Your task to perform on an android device: Go to wifi settings Image 0: 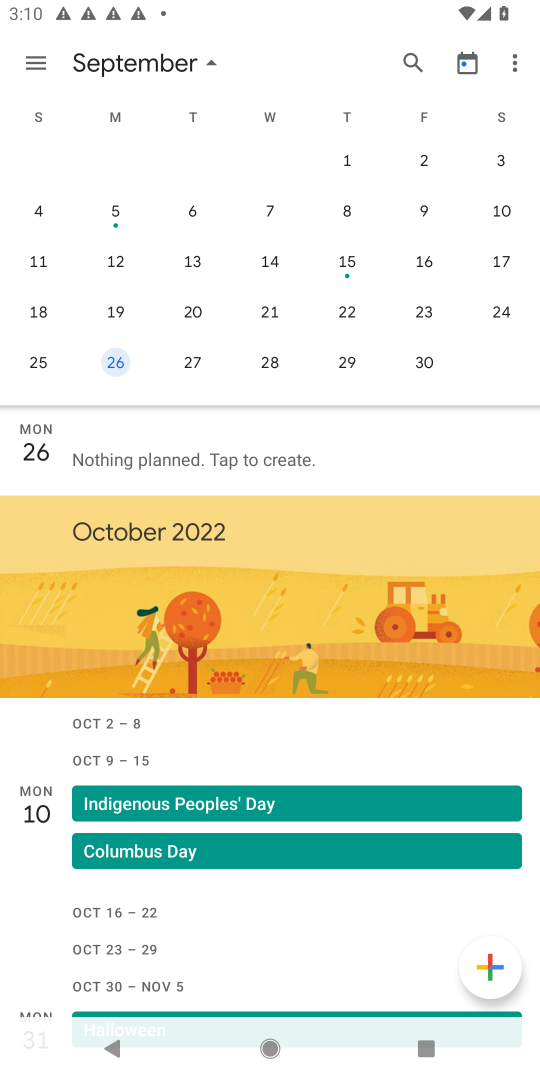
Step 0: press home button
Your task to perform on an android device: Go to wifi settings Image 1: 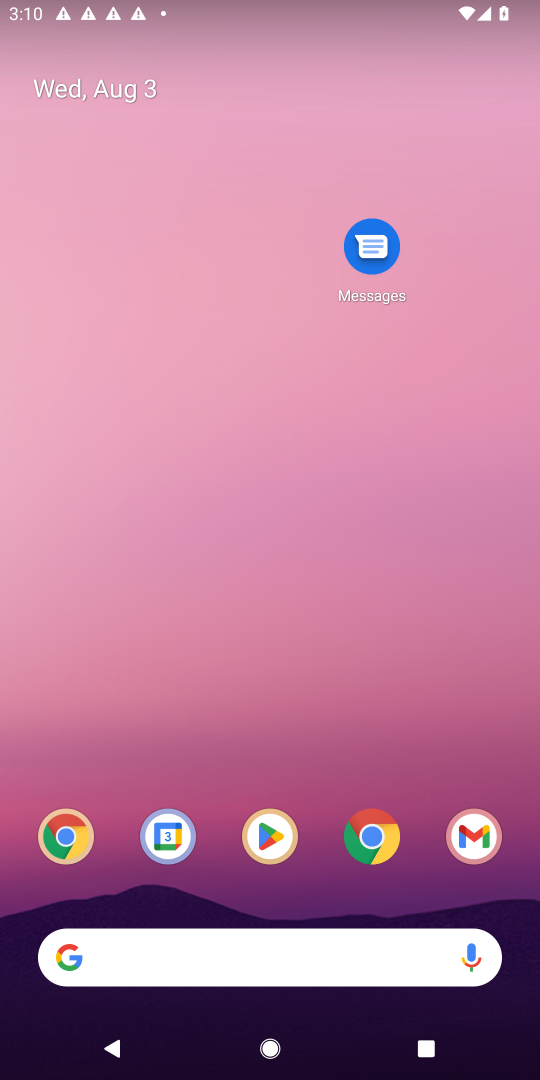
Step 1: drag from (70, 1002) to (289, 310)
Your task to perform on an android device: Go to wifi settings Image 2: 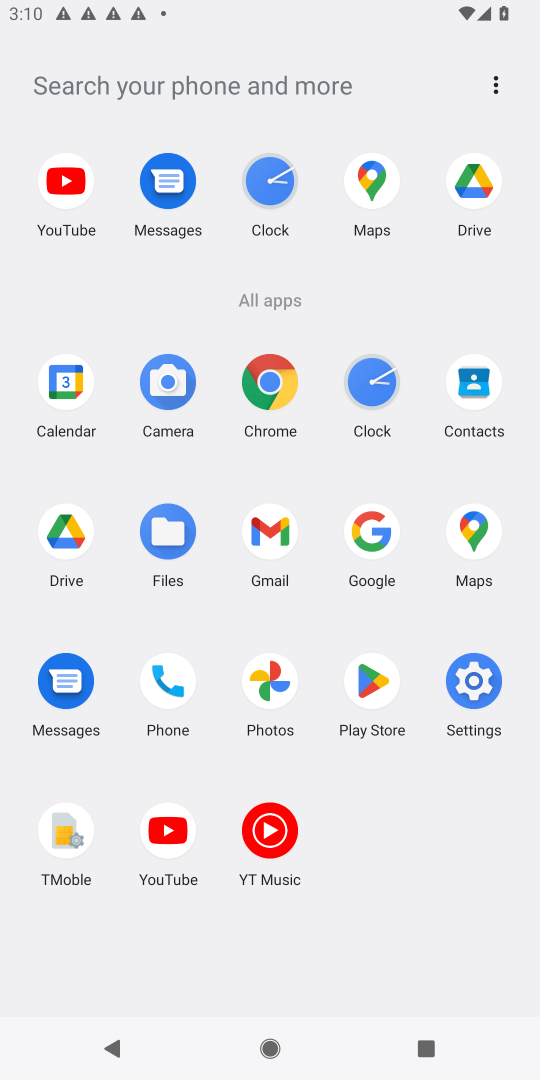
Step 2: click (467, 690)
Your task to perform on an android device: Go to wifi settings Image 3: 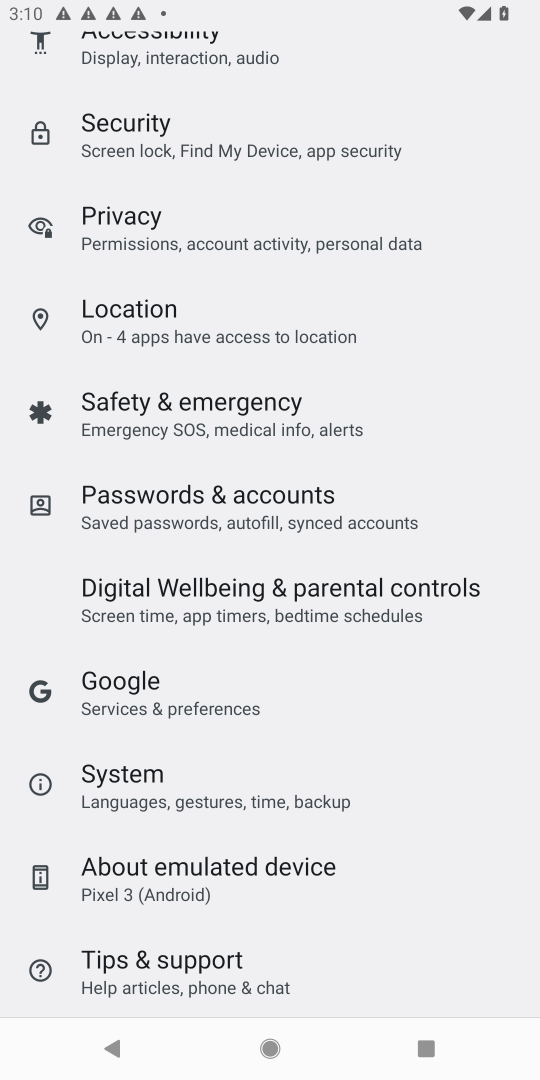
Step 3: drag from (250, 145) to (268, 1071)
Your task to perform on an android device: Go to wifi settings Image 4: 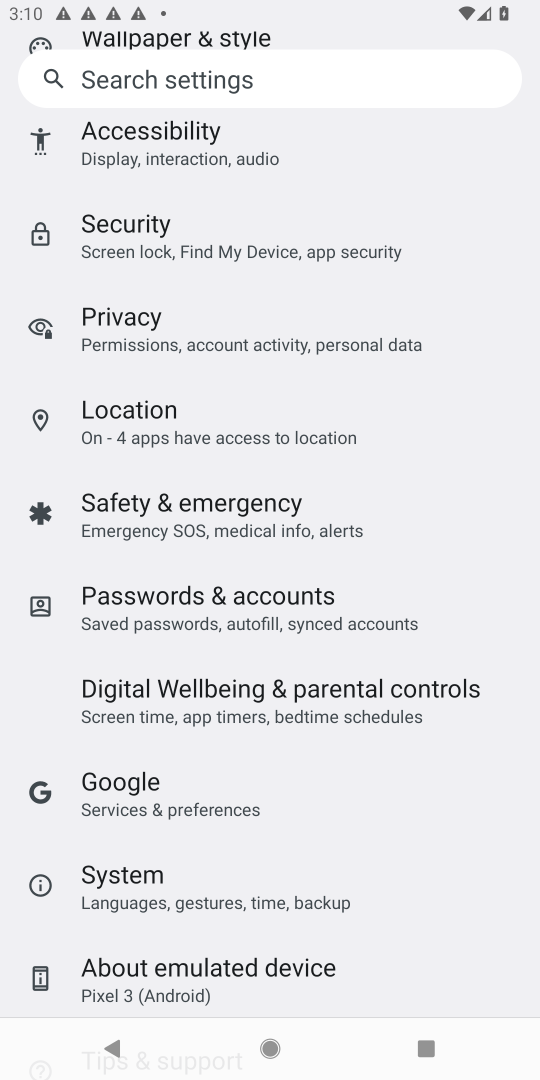
Step 4: drag from (317, 175) to (441, 1075)
Your task to perform on an android device: Go to wifi settings Image 5: 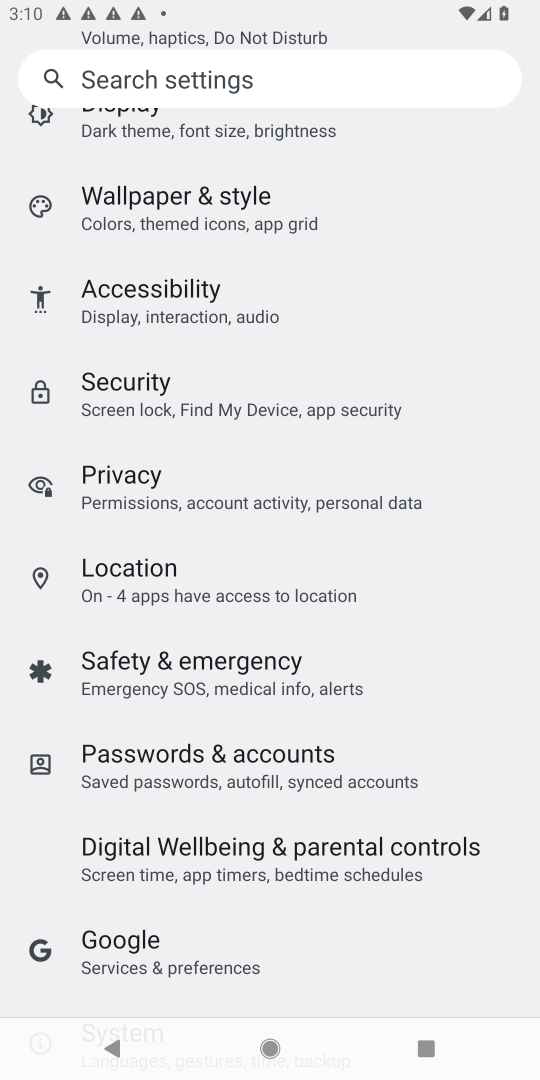
Step 5: drag from (403, 496) to (428, 937)
Your task to perform on an android device: Go to wifi settings Image 6: 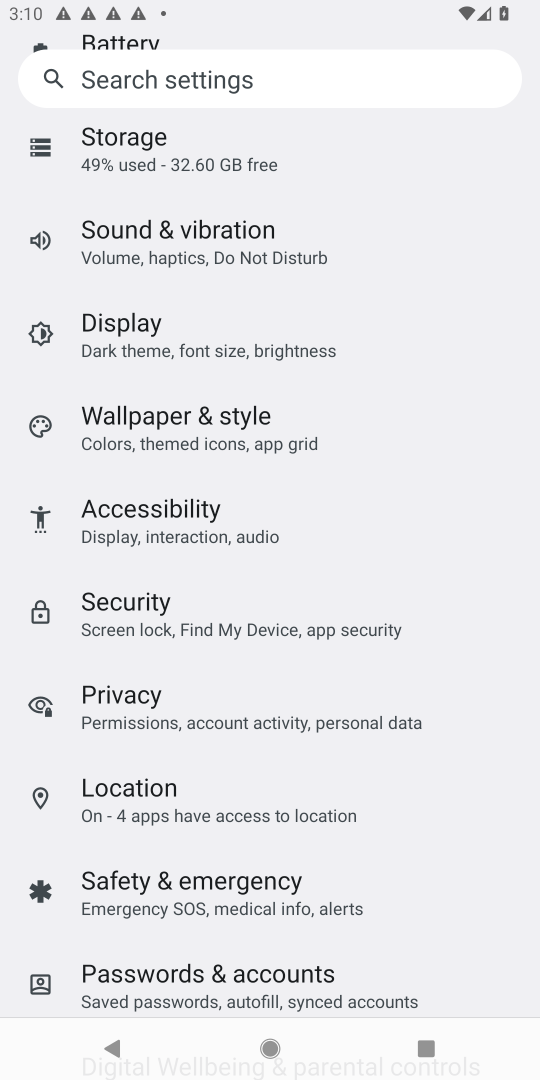
Step 6: drag from (382, 153) to (406, 1060)
Your task to perform on an android device: Go to wifi settings Image 7: 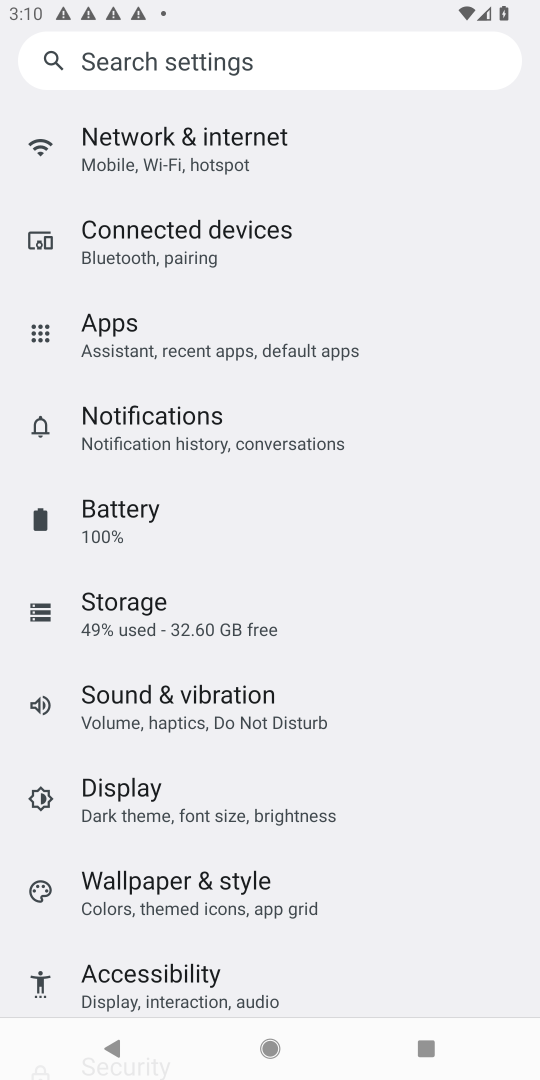
Step 7: click (256, 153)
Your task to perform on an android device: Go to wifi settings Image 8: 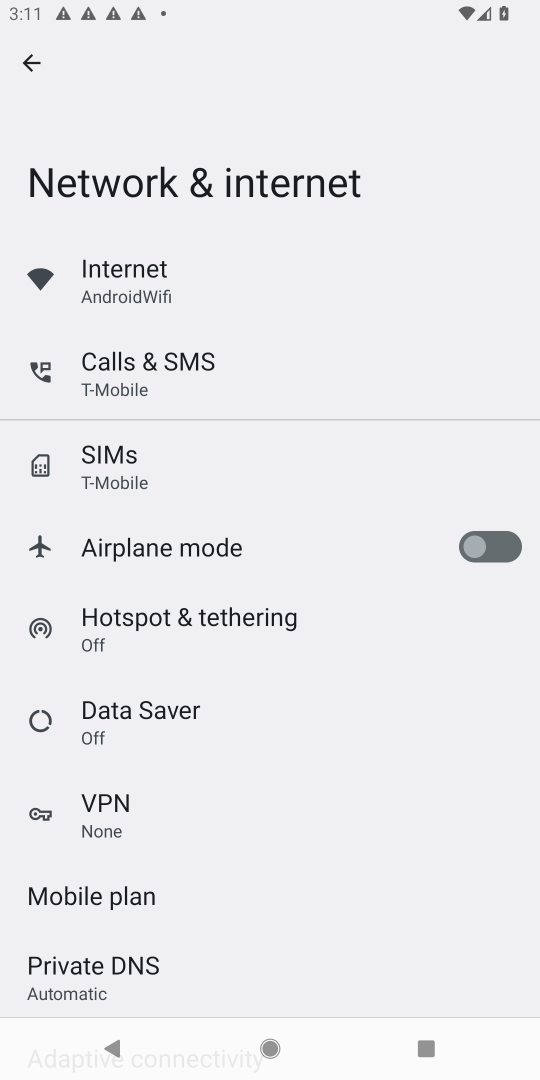
Step 8: drag from (310, 828) to (417, 499)
Your task to perform on an android device: Go to wifi settings Image 9: 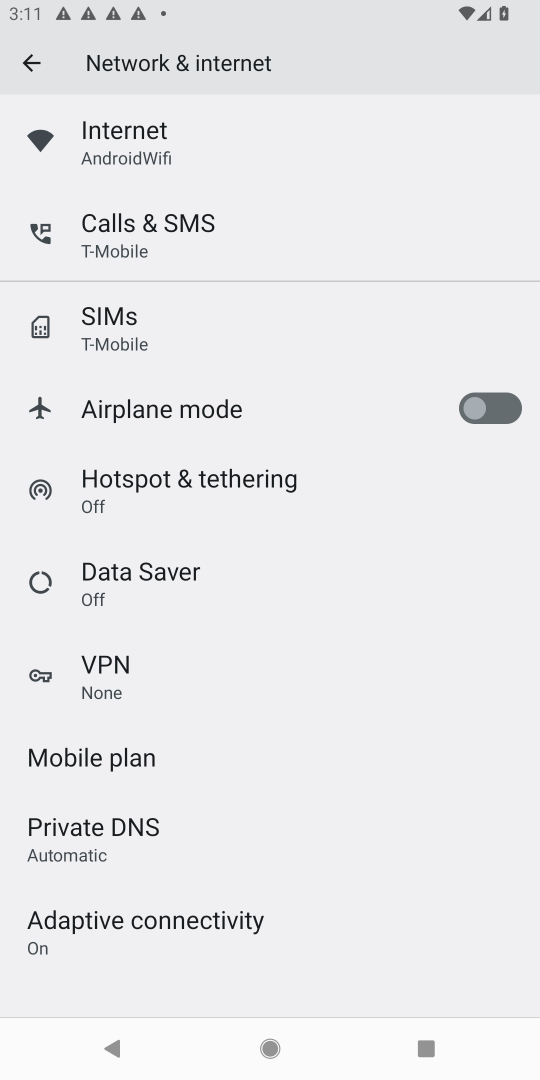
Step 9: click (187, 134)
Your task to perform on an android device: Go to wifi settings Image 10: 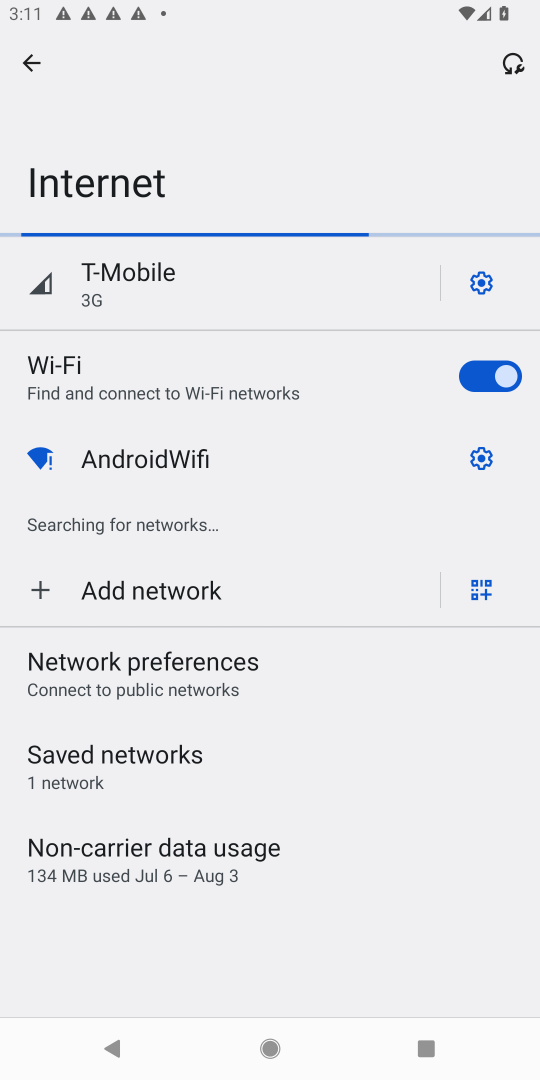
Step 10: task complete